Your task to perform on an android device: Open internet settings Image 0: 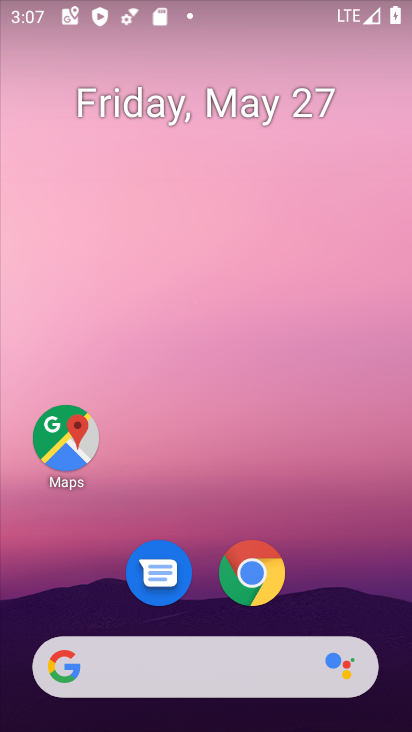
Step 0: drag from (228, 513) to (210, 26)
Your task to perform on an android device: Open internet settings Image 1: 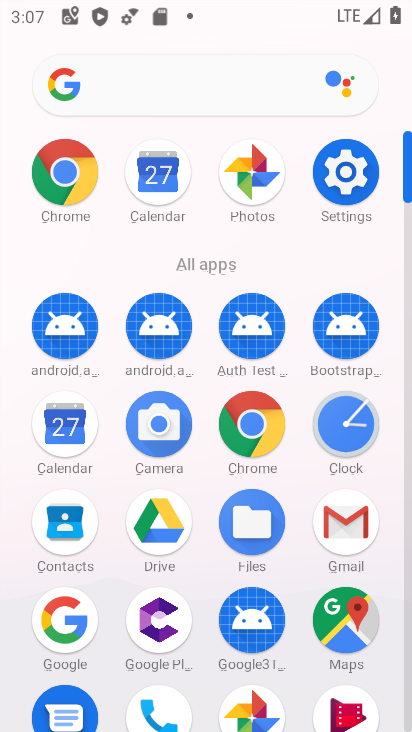
Step 1: click (346, 156)
Your task to perform on an android device: Open internet settings Image 2: 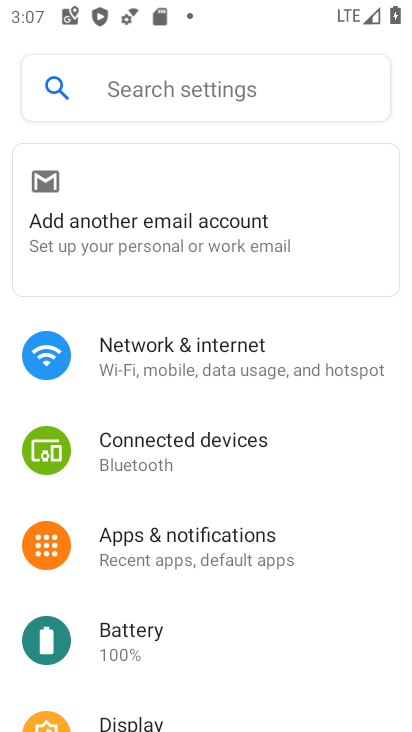
Step 2: click (217, 361)
Your task to perform on an android device: Open internet settings Image 3: 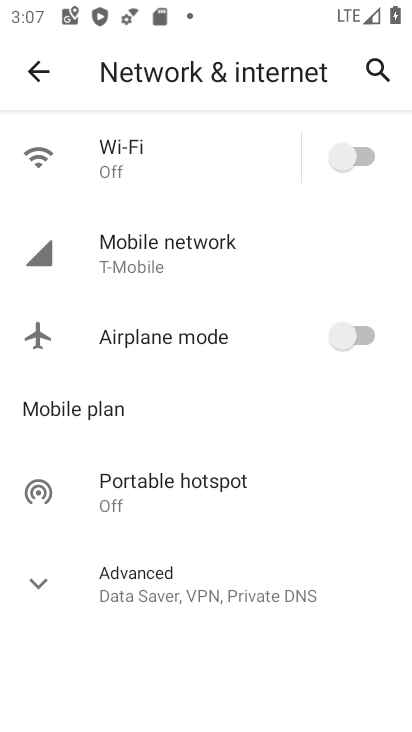
Step 3: task complete